Your task to perform on an android device: Show me productivity apps on the Play Store Image 0: 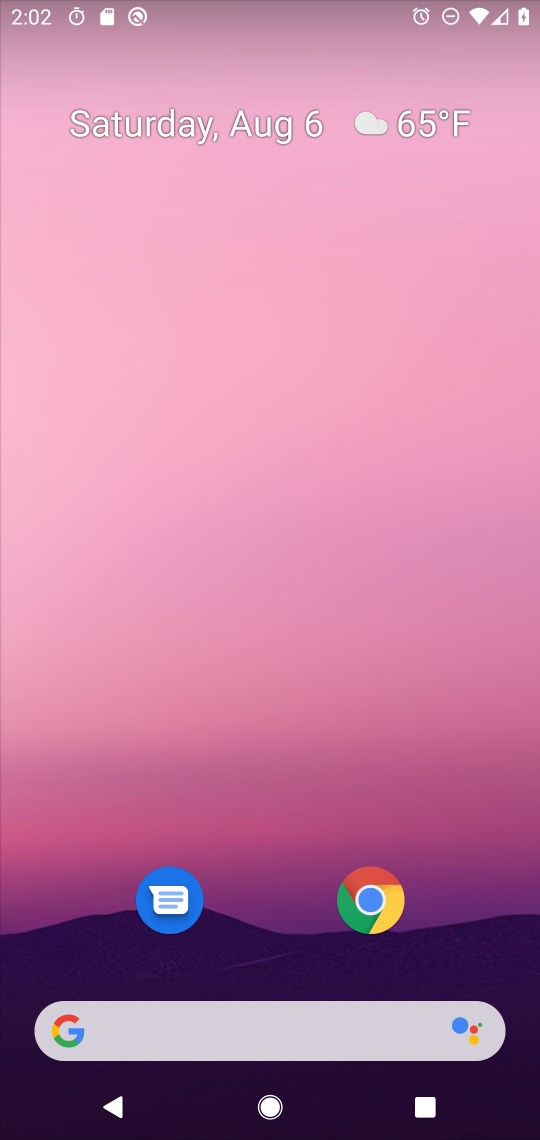
Step 0: drag from (261, 817) to (263, 143)
Your task to perform on an android device: Show me productivity apps on the Play Store Image 1: 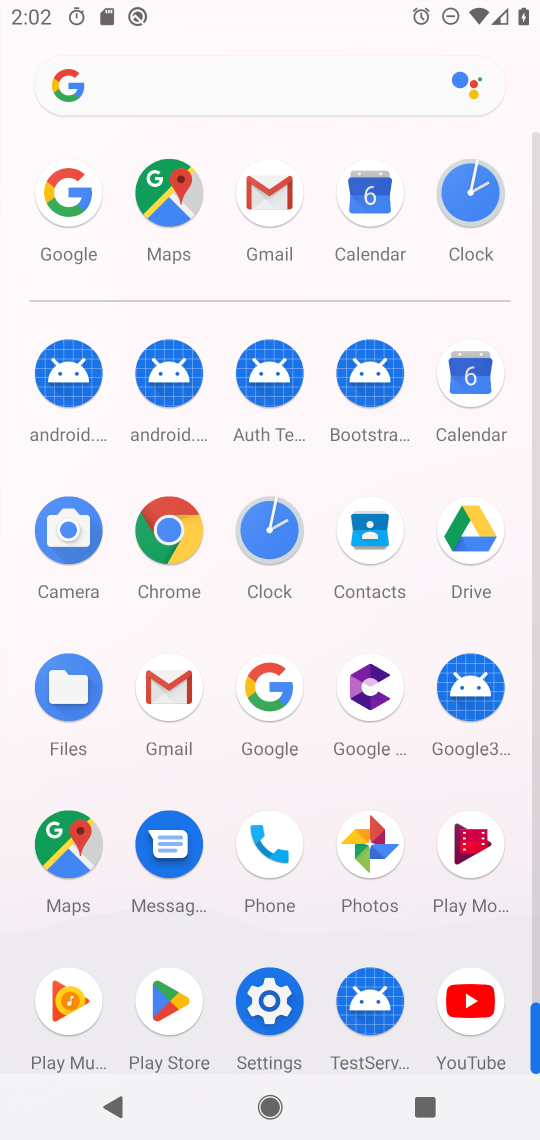
Step 1: click (175, 1007)
Your task to perform on an android device: Show me productivity apps on the Play Store Image 2: 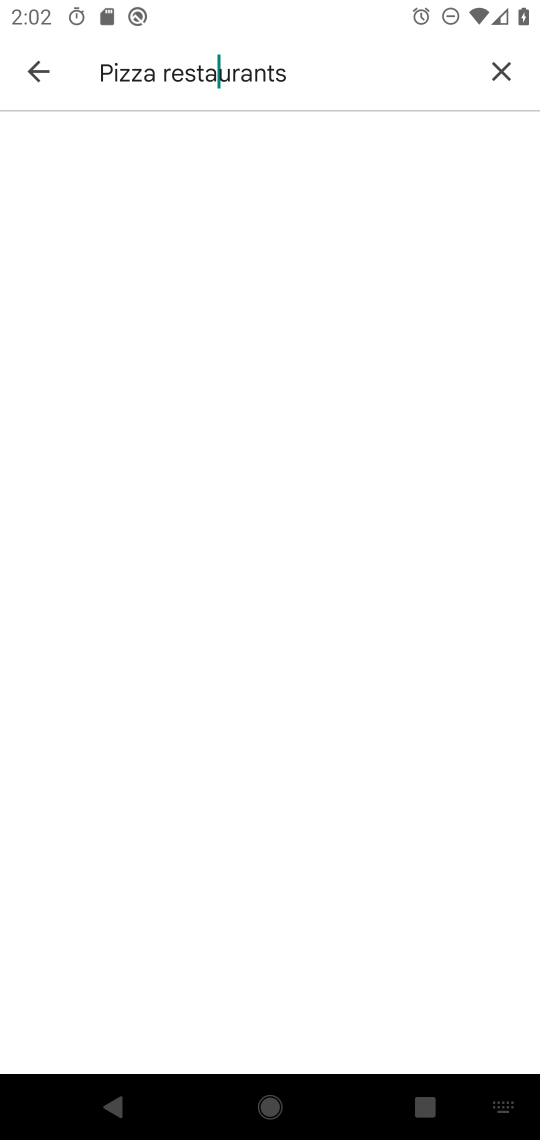
Step 2: press home button
Your task to perform on an android device: Show me productivity apps on the Play Store Image 3: 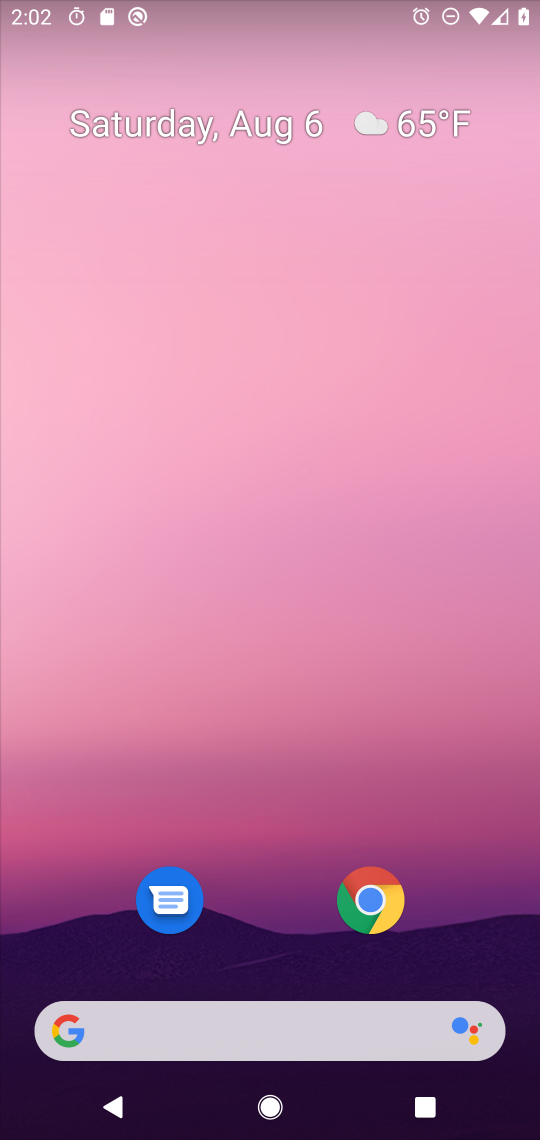
Step 3: drag from (277, 941) to (260, 73)
Your task to perform on an android device: Show me productivity apps on the Play Store Image 4: 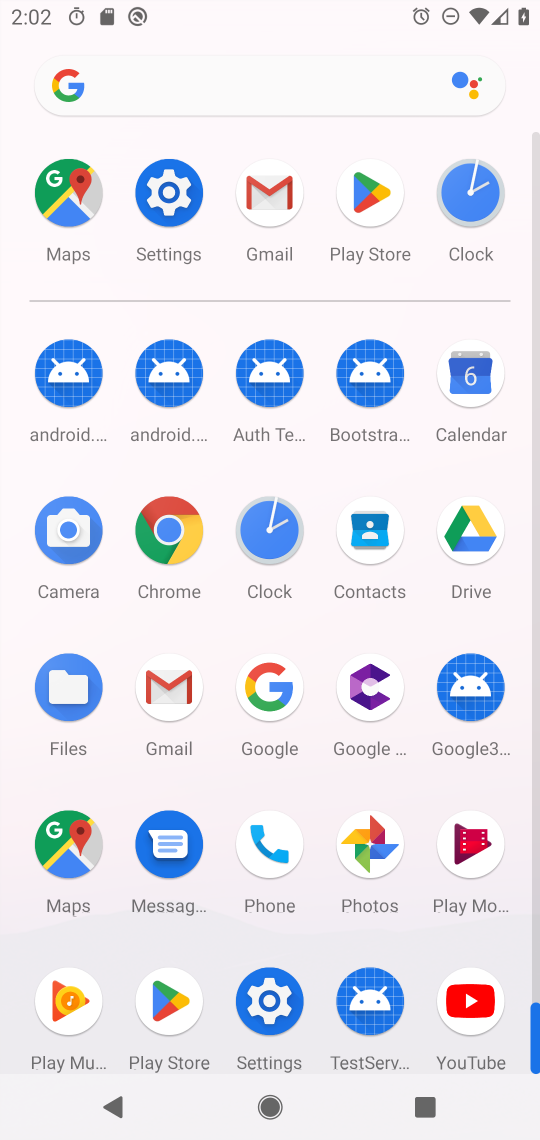
Step 4: click (159, 1013)
Your task to perform on an android device: Show me productivity apps on the Play Store Image 5: 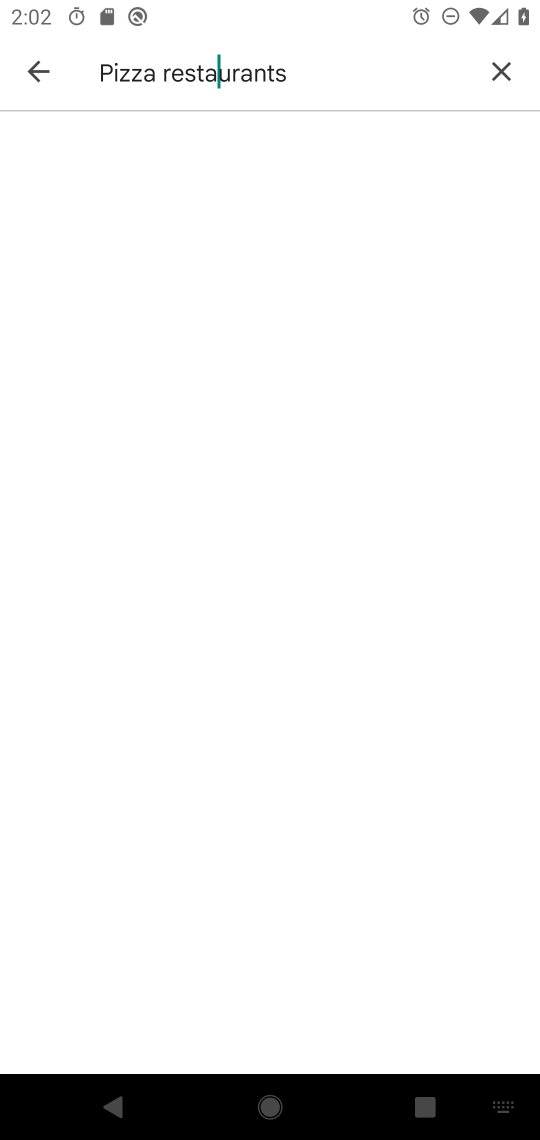
Step 5: click (35, 70)
Your task to perform on an android device: Show me productivity apps on the Play Store Image 6: 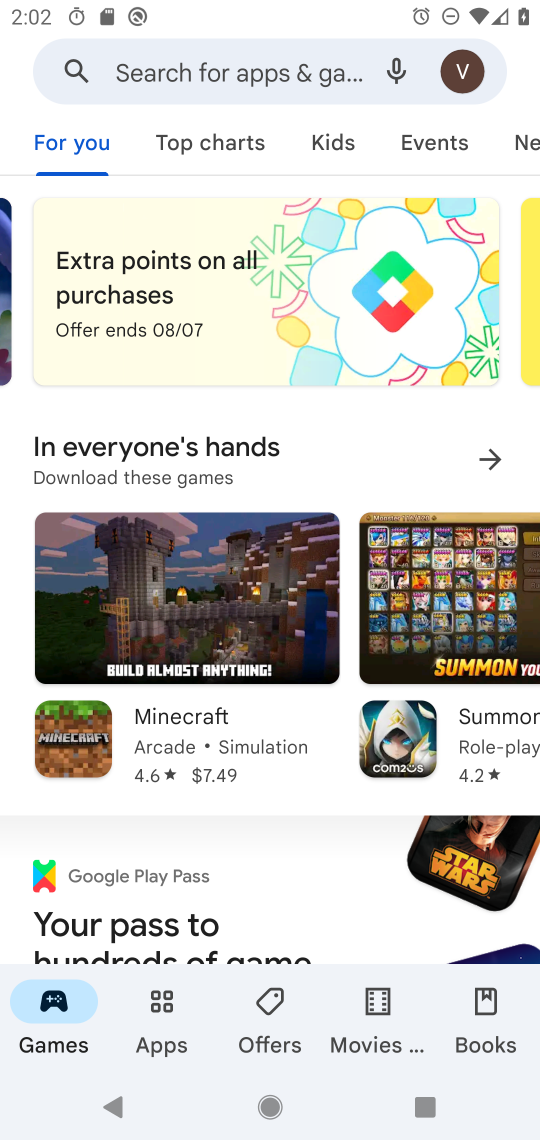
Step 6: click (166, 1010)
Your task to perform on an android device: Show me productivity apps on the Play Store Image 7: 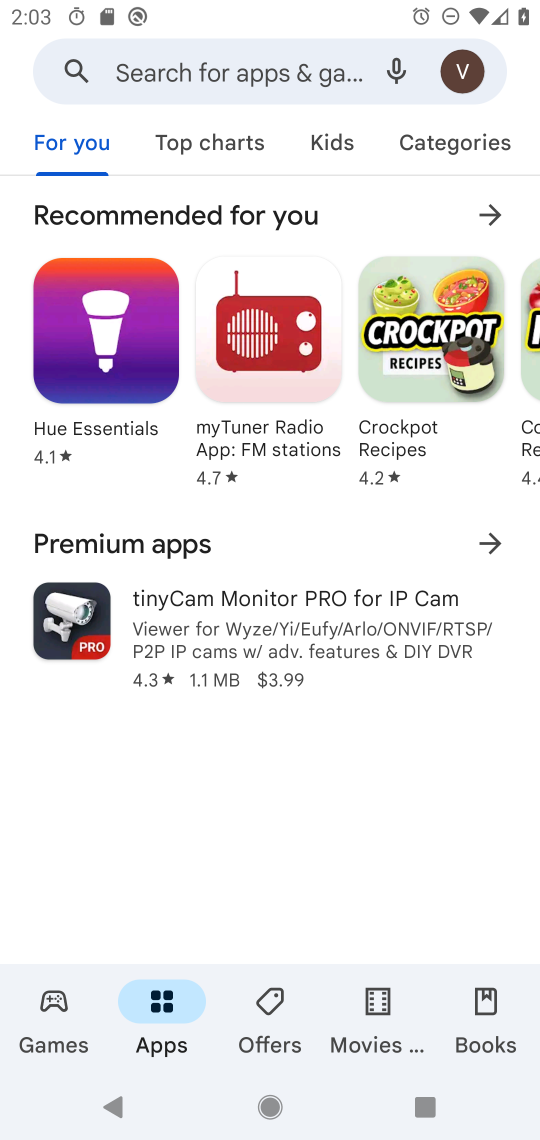
Step 7: click (444, 137)
Your task to perform on an android device: Show me productivity apps on the Play Store Image 8: 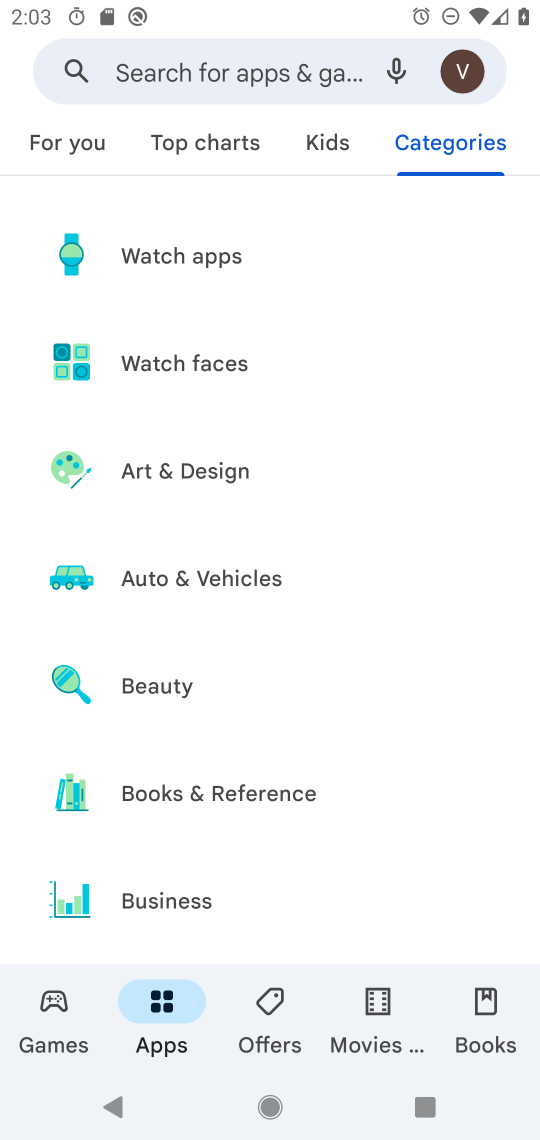
Step 8: drag from (143, 862) to (172, 446)
Your task to perform on an android device: Show me productivity apps on the Play Store Image 9: 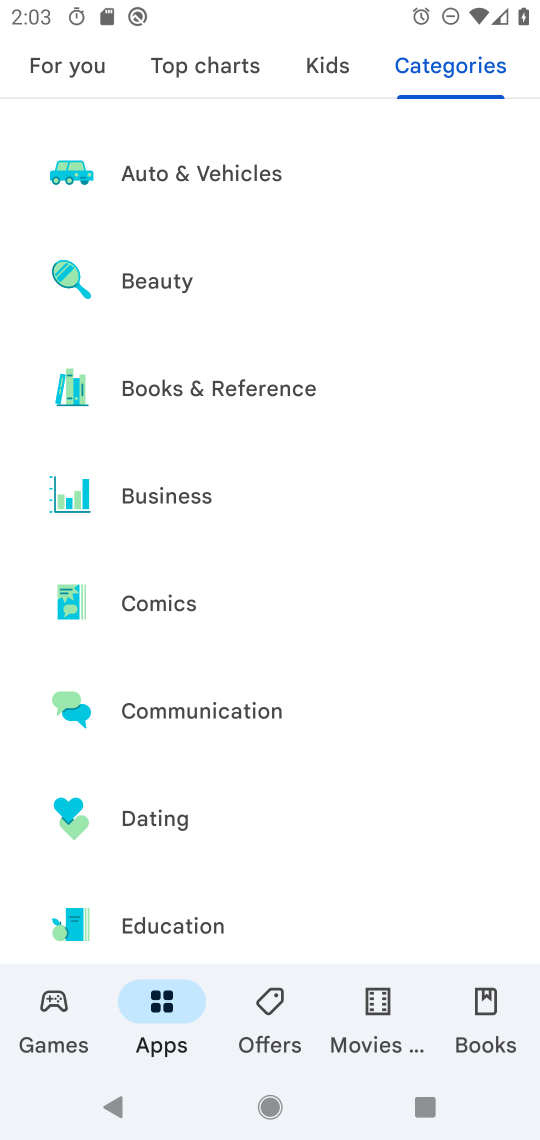
Step 9: drag from (185, 822) to (182, 603)
Your task to perform on an android device: Show me productivity apps on the Play Store Image 10: 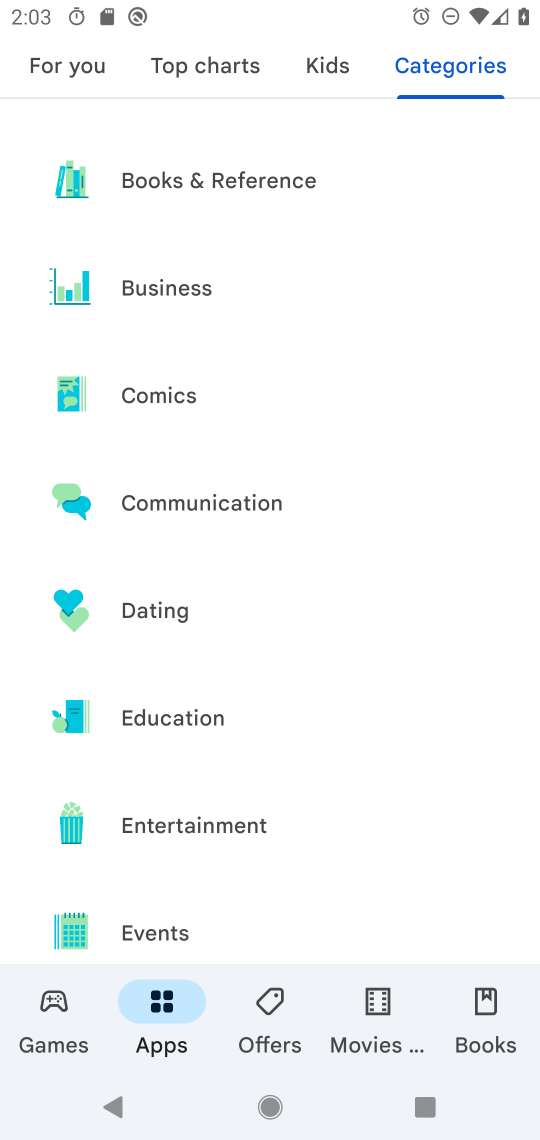
Step 10: drag from (176, 882) to (181, 533)
Your task to perform on an android device: Show me productivity apps on the Play Store Image 11: 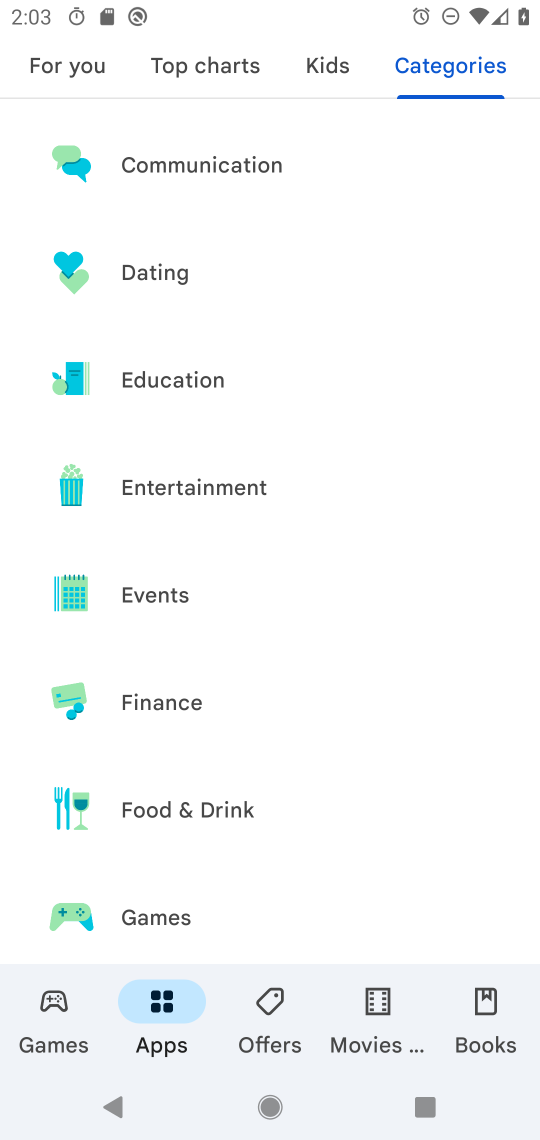
Step 11: drag from (151, 862) to (182, 328)
Your task to perform on an android device: Show me productivity apps on the Play Store Image 12: 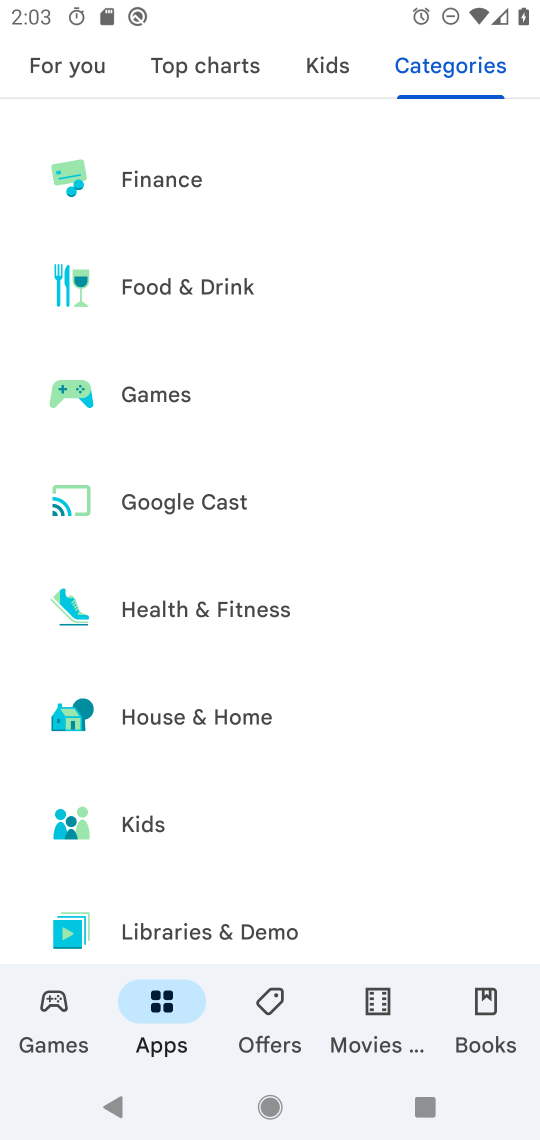
Step 12: drag from (157, 892) to (179, 377)
Your task to perform on an android device: Show me productivity apps on the Play Store Image 13: 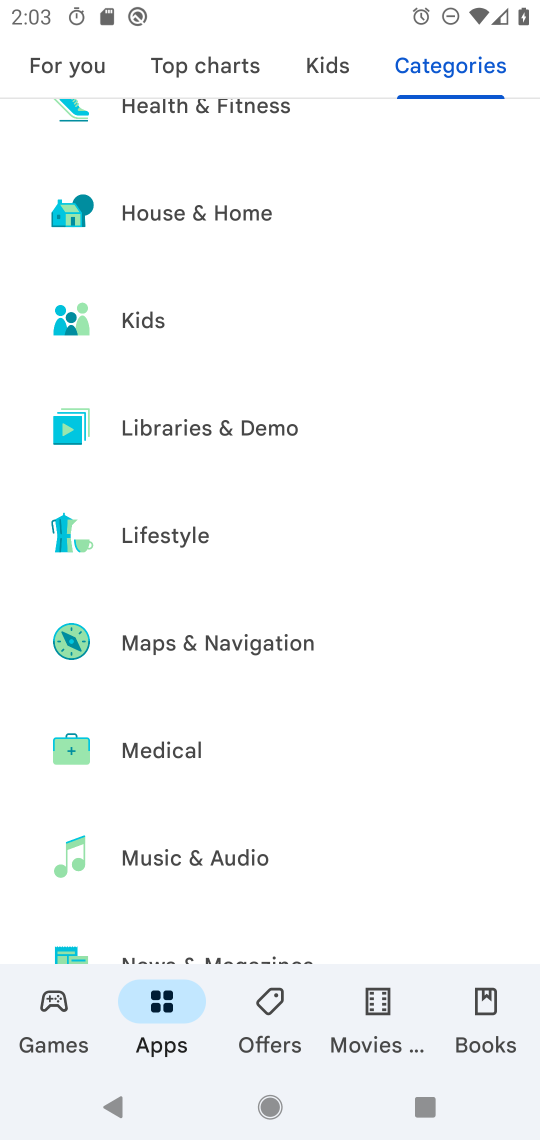
Step 13: drag from (189, 805) to (196, 390)
Your task to perform on an android device: Show me productivity apps on the Play Store Image 14: 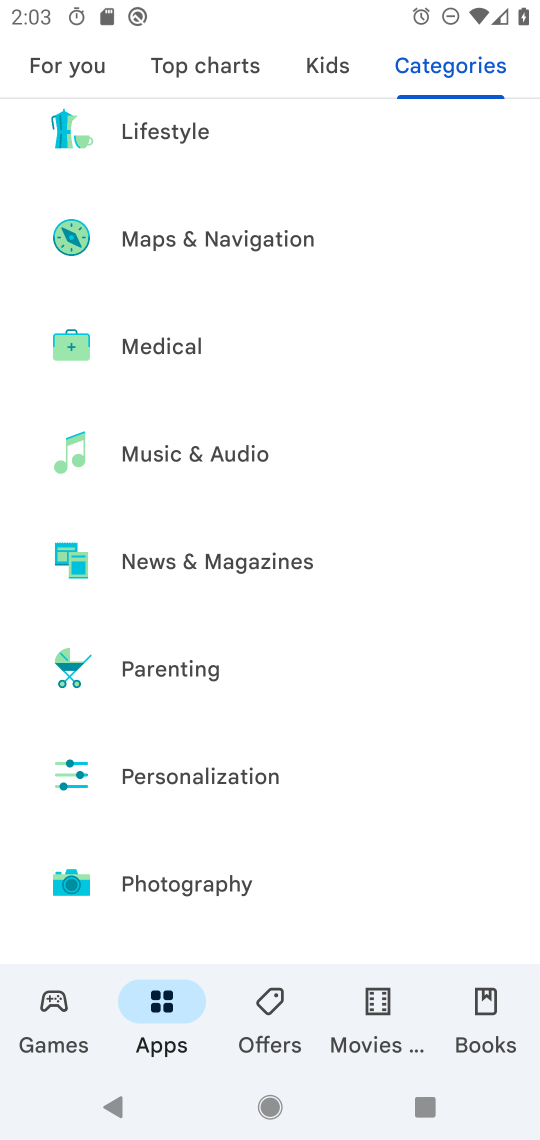
Step 14: drag from (183, 870) to (198, 497)
Your task to perform on an android device: Show me productivity apps on the Play Store Image 15: 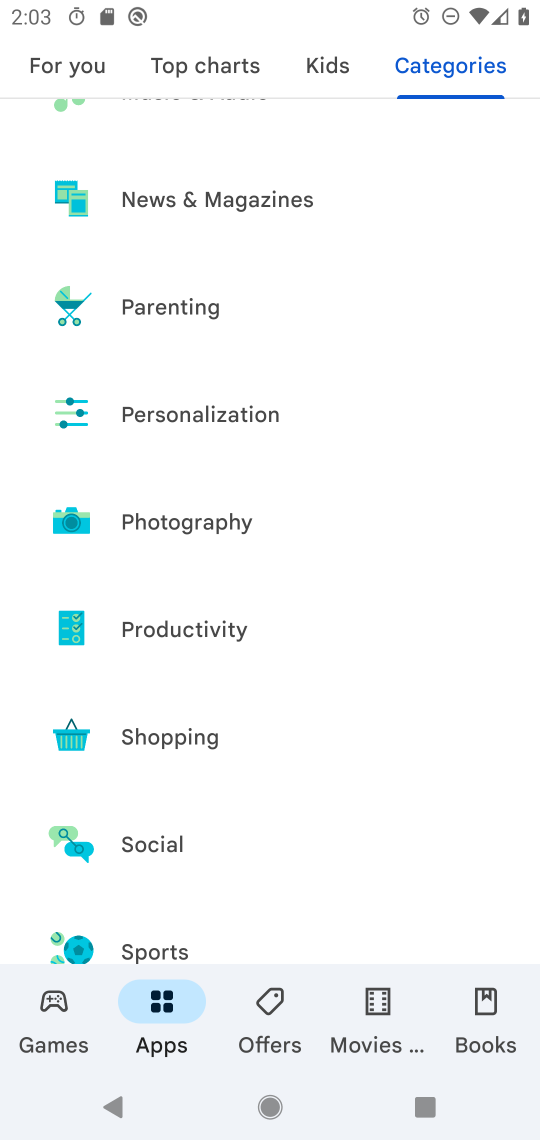
Step 15: click (175, 623)
Your task to perform on an android device: Show me productivity apps on the Play Store Image 16: 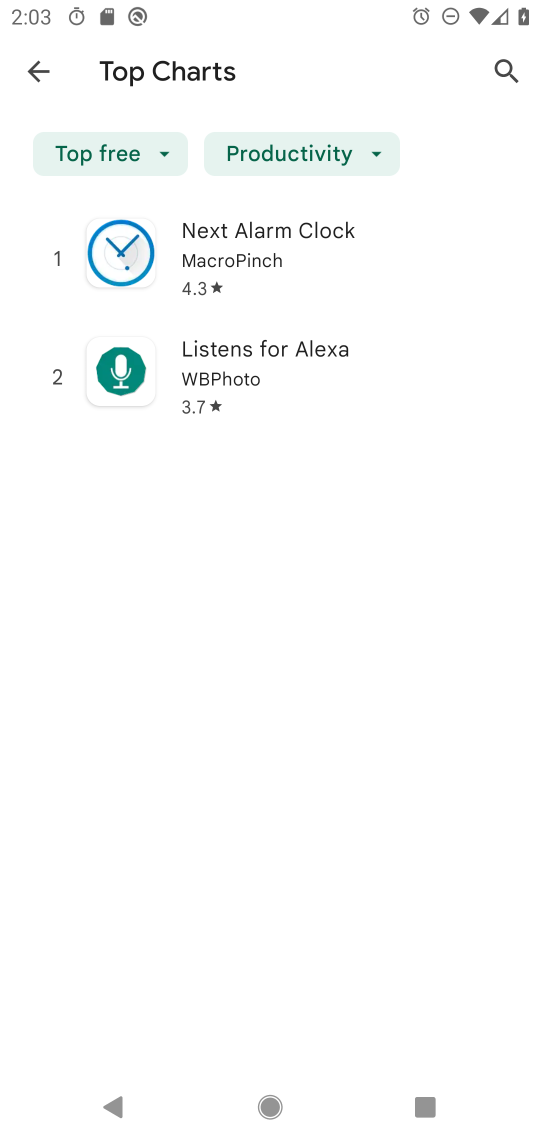
Step 16: task complete